Your task to perform on an android device: Open Wikipedia Image 0: 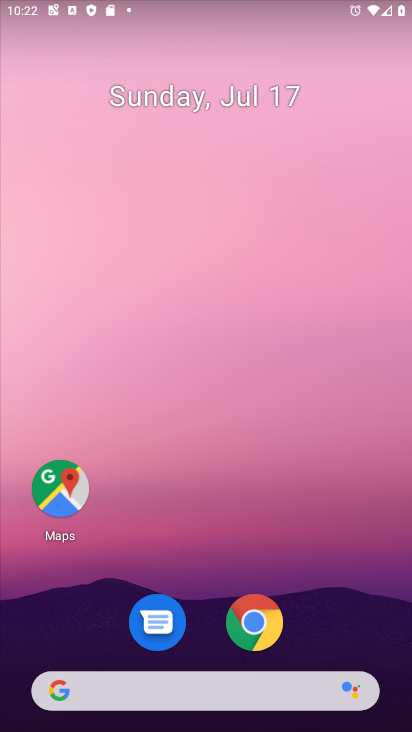
Step 0: click (119, 686)
Your task to perform on an android device: Open Wikipedia Image 1: 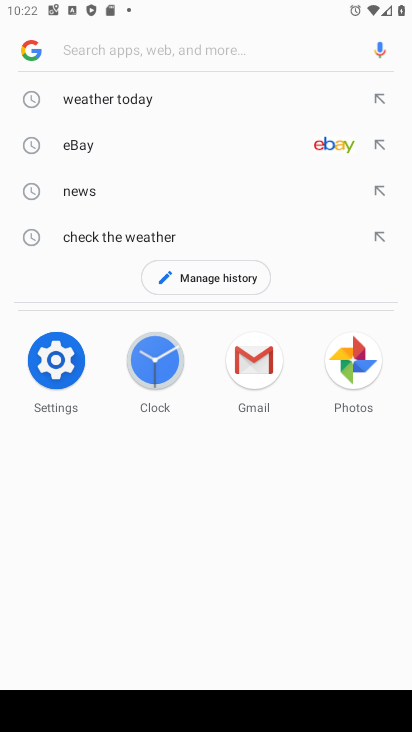
Step 1: click (287, 44)
Your task to perform on an android device: Open Wikipedia Image 2: 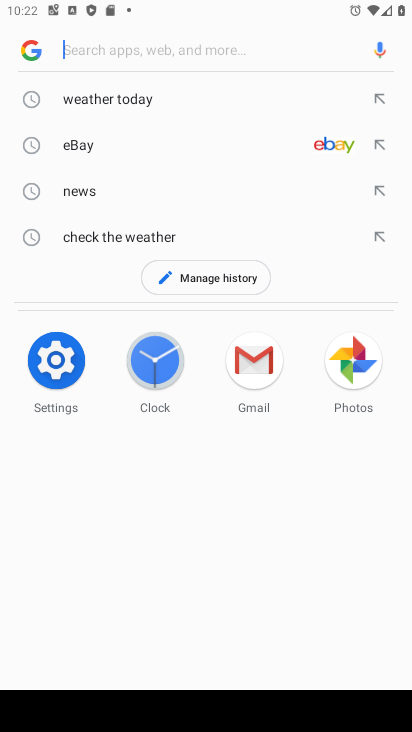
Step 2: type "wikipedia "
Your task to perform on an android device: Open Wikipedia Image 3: 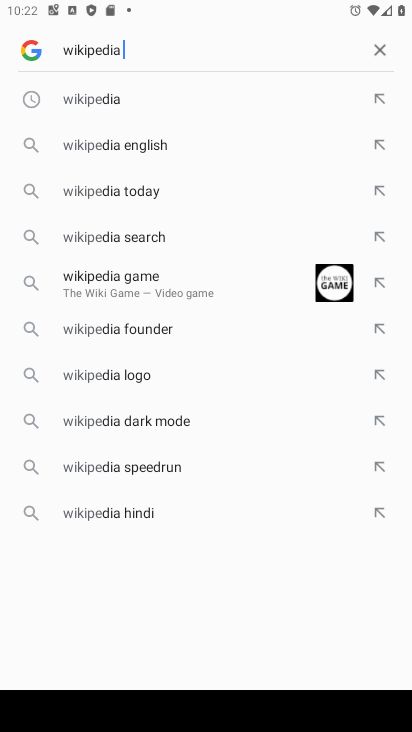
Step 3: press enter
Your task to perform on an android device: Open Wikipedia Image 4: 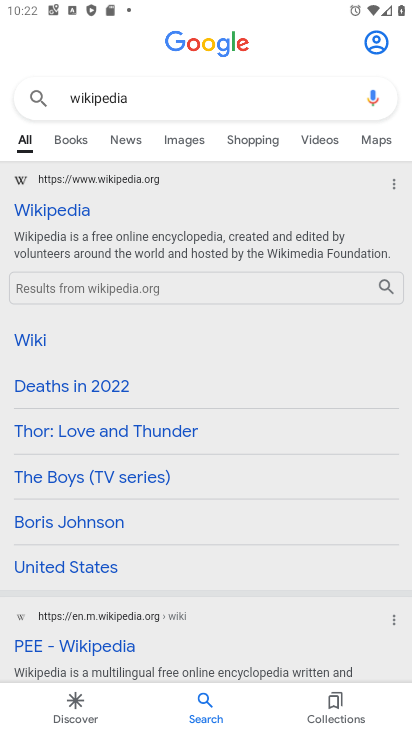
Step 4: click (107, 177)
Your task to perform on an android device: Open Wikipedia Image 5: 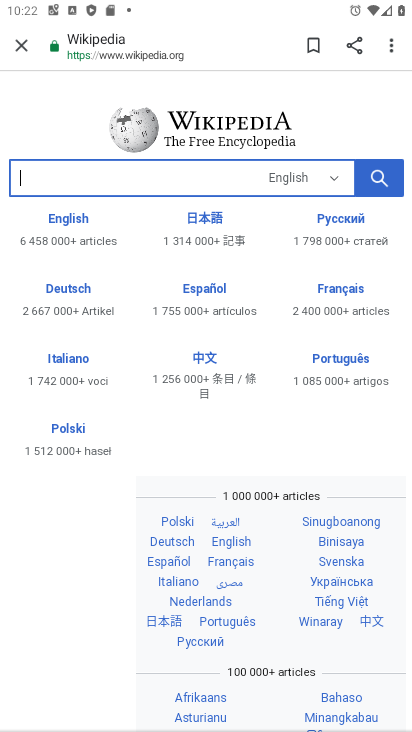
Step 5: task complete